Your task to perform on an android device: Open Google Chrome and open the bookmarks view Image 0: 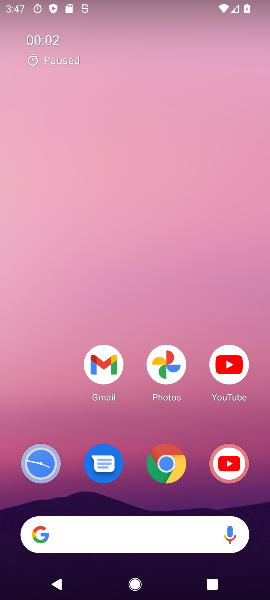
Step 0: drag from (178, 538) to (121, 229)
Your task to perform on an android device: Open Google Chrome and open the bookmarks view Image 1: 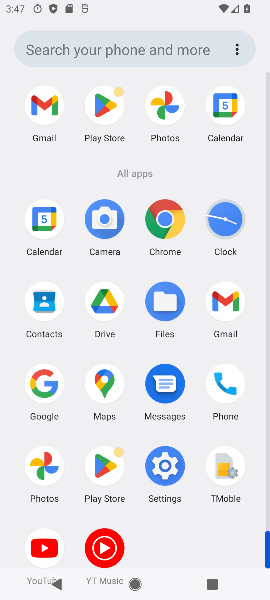
Step 1: click (163, 220)
Your task to perform on an android device: Open Google Chrome and open the bookmarks view Image 2: 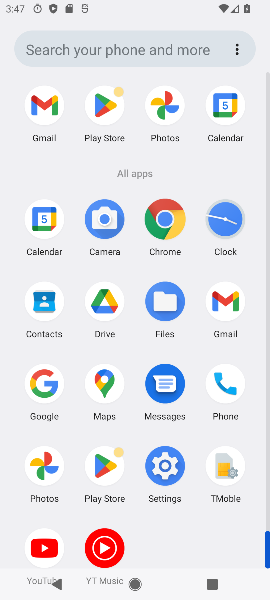
Step 2: click (164, 220)
Your task to perform on an android device: Open Google Chrome and open the bookmarks view Image 3: 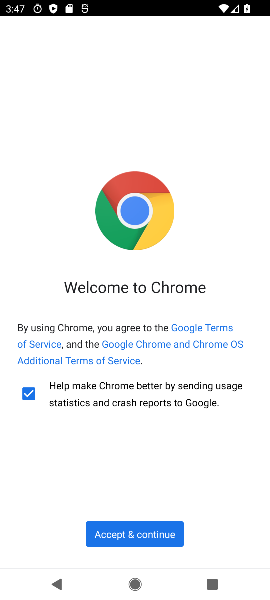
Step 3: click (140, 534)
Your task to perform on an android device: Open Google Chrome and open the bookmarks view Image 4: 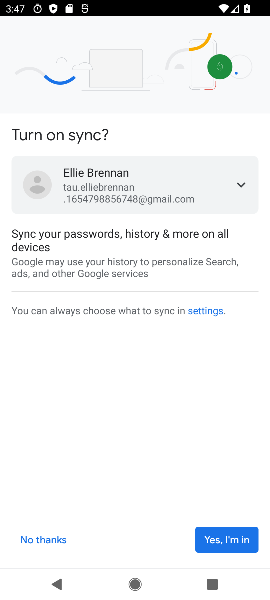
Step 4: click (32, 544)
Your task to perform on an android device: Open Google Chrome and open the bookmarks view Image 5: 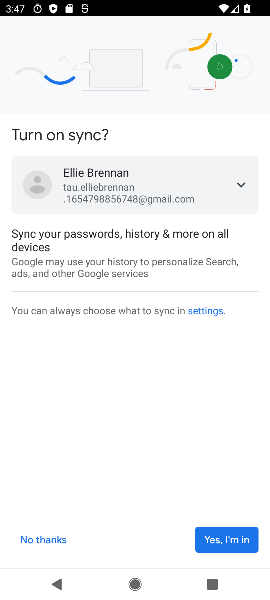
Step 5: click (39, 532)
Your task to perform on an android device: Open Google Chrome and open the bookmarks view Image 6: 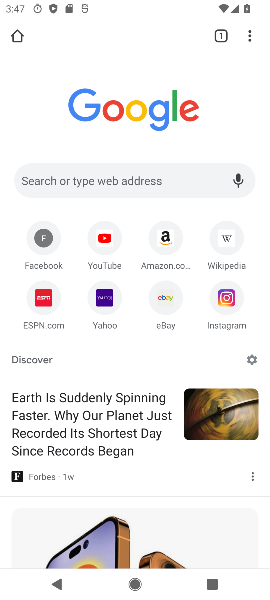
Step 6: drag from (250, 34) to (169, 217)
Your task to perform on an android device: Open Google Chrome and open the bookmarks view Image 7: 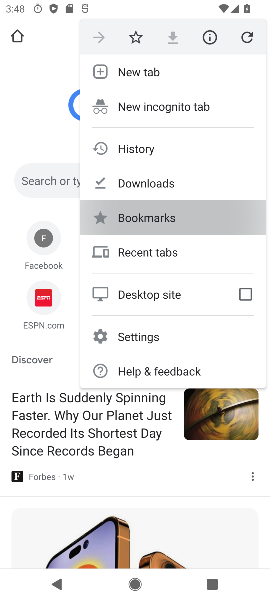
Step 7: click (177, 218)
Your task to perform on an android device: Open Google Chrome and open the bookmarks view Image 8: 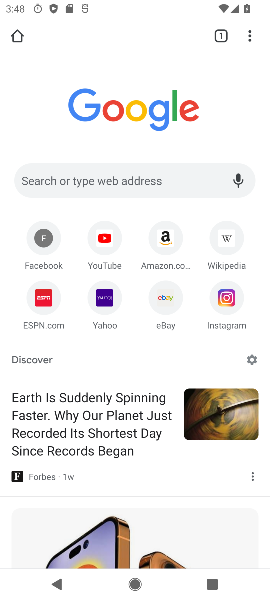
Step 8: click (179, 218)
Your task to perform on an android device: Open Google Chrome and open the bookmarks view Image 9: 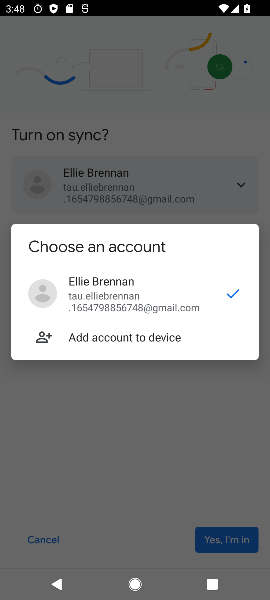
Step 9: click (153, 406)
Your task to perform on an android device: Open Google Chrome and open the bookmarks view Image 10: 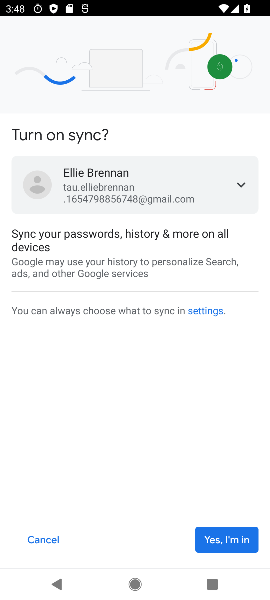
Step 10: click (65, 542)
Your task to perform on an android device: Open Google Chrome and open the bookmarks view Image 11: 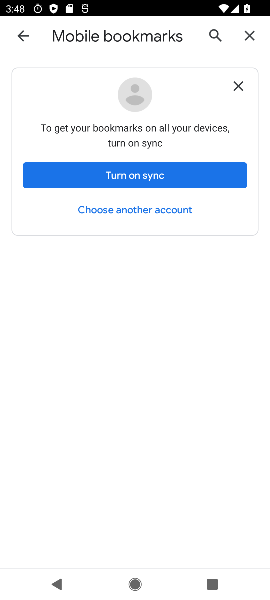
Step 11: click (19, 36)
Your task to perform on an android device: Open Google Chrome and open the bookmarks view Image 12: 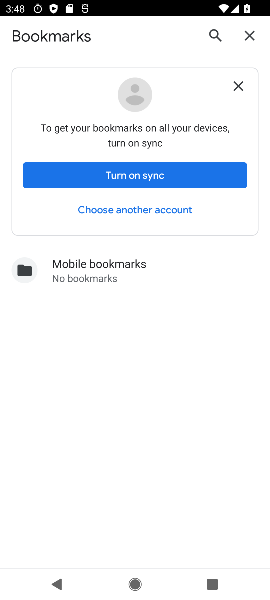
Step 12: task complete